Your task to perform on an android device: Clear all items from cart on costco.com. Add acer predator to the cart on costco.com Image 0: 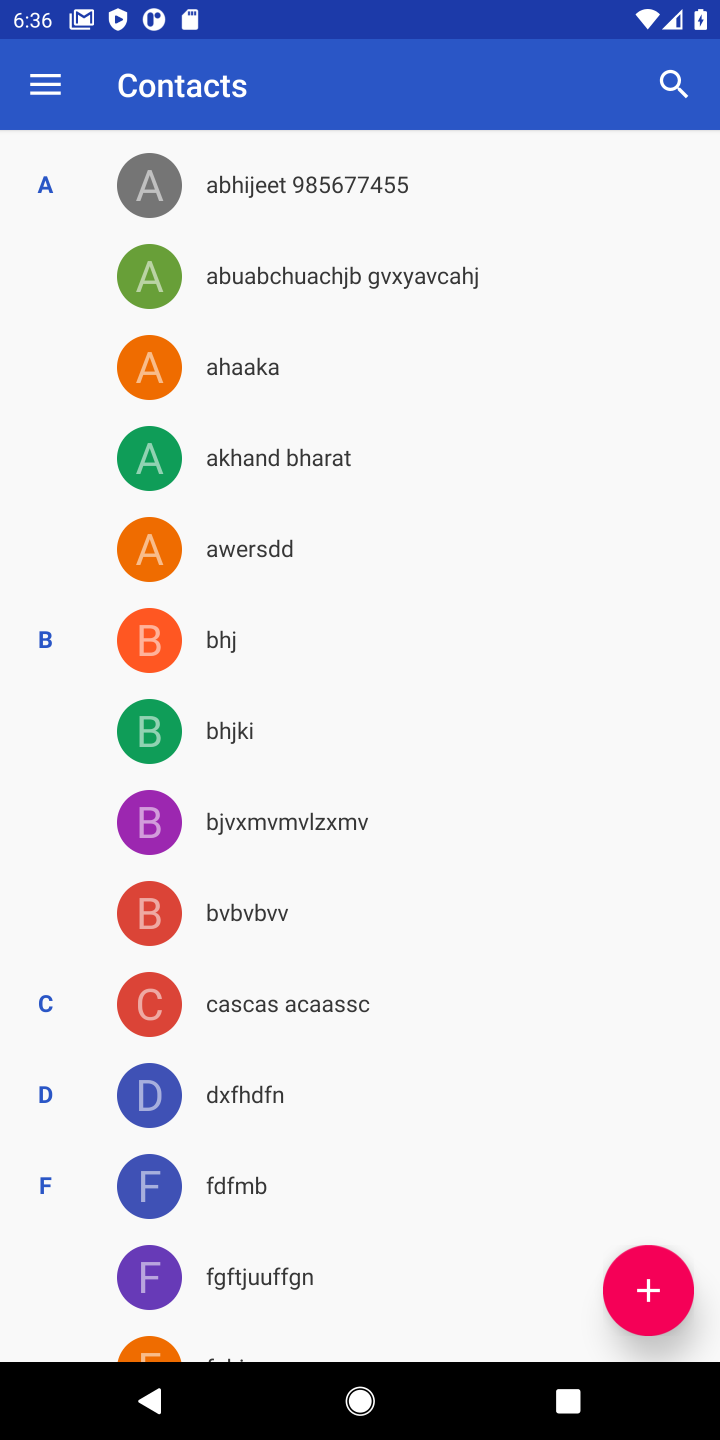
Step 0: press home button
Your task to perform on an android device: Clear all items from cart on costco.com. Add acer predator to the cart on costco.com Image 1: 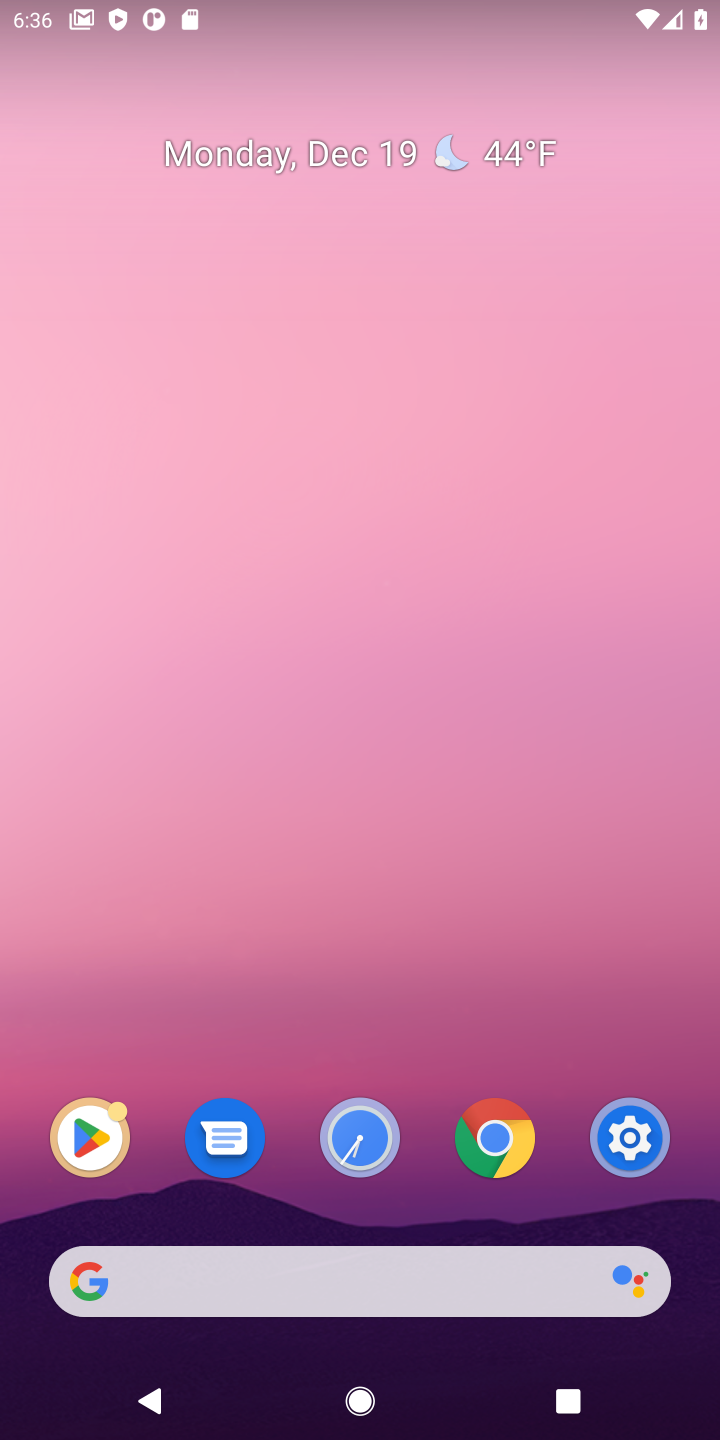
Step 1: click (501, 1148)
Your task to perform on an android device: Clear all items from cart on costco.com. Add acer predator to the cart on costco.com Image 2: 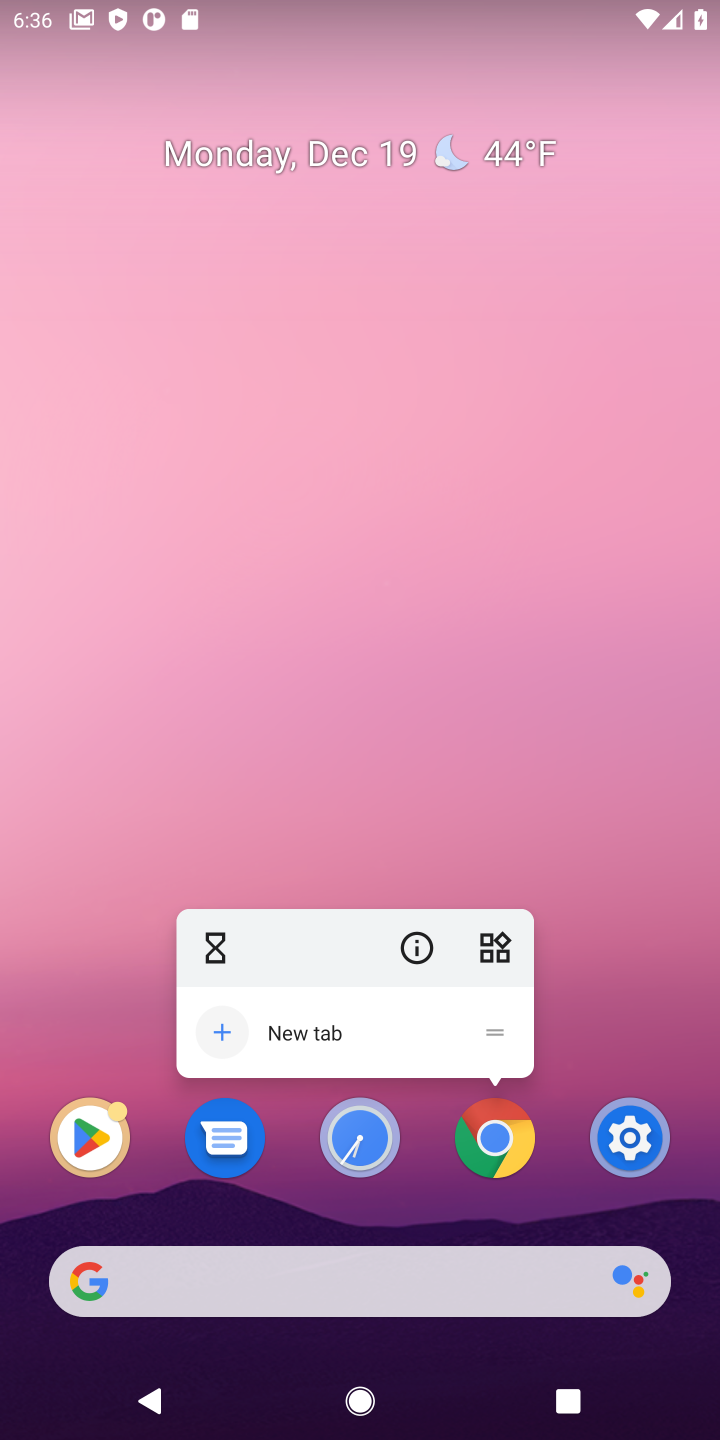
Step 2: click (496, 1123)
Your task to perform on an android device: Clear all items from cart on costco.com. Add acer predator to the cart on costco.com Image 3: 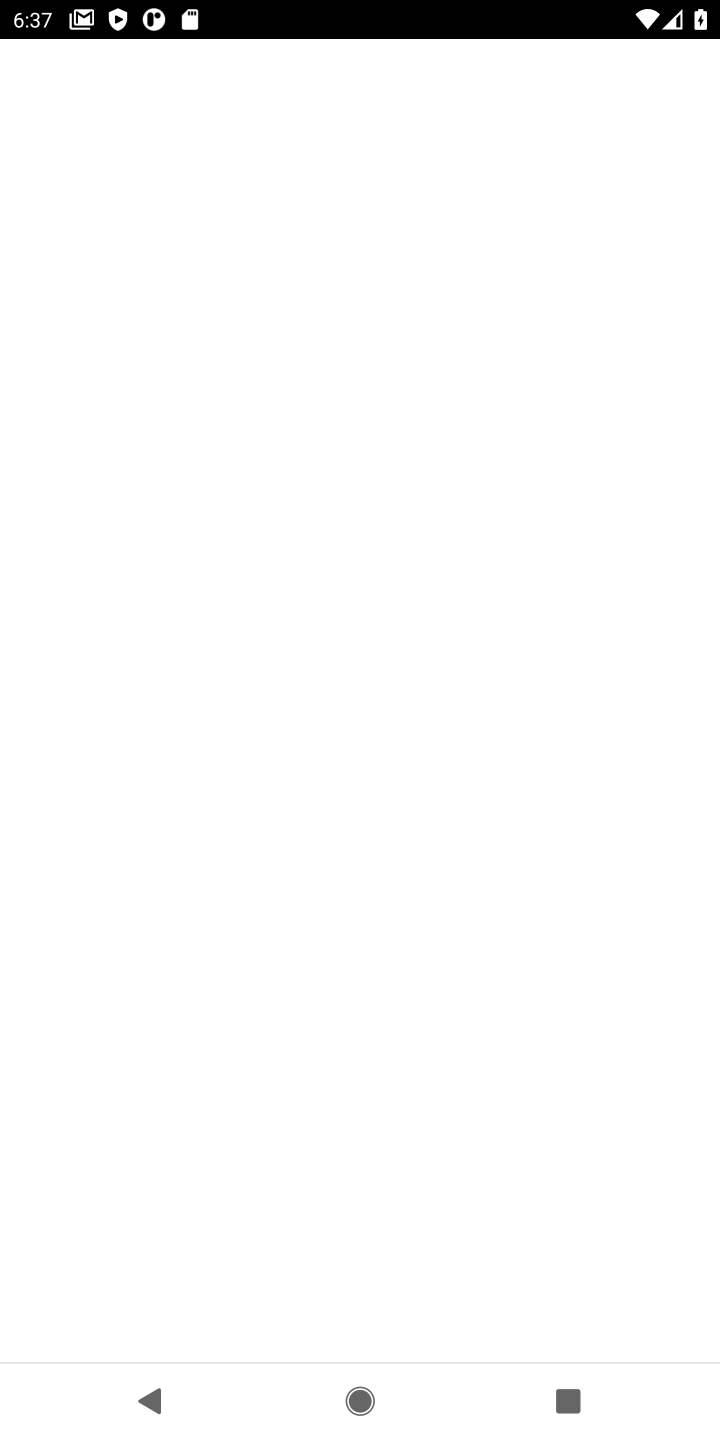
Step 3: click (496, 1123)
Your task to perform on an android device: Clear all items from cart on costco.com. Add acer predator to the cart on costco.com Image 4: 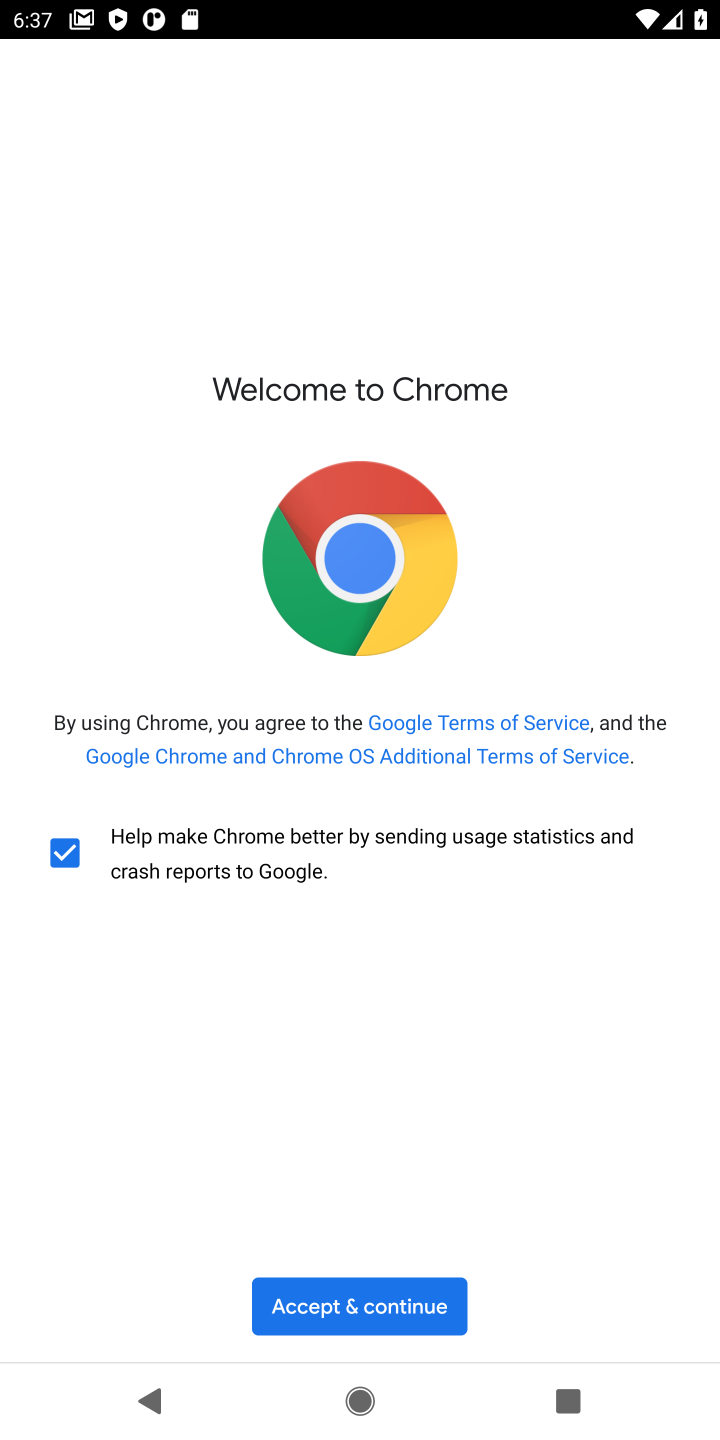
Step 4: click (350, 1310)
Your task to perform on an android device: Clear all items from cart on costco.com. Add acer predator to the cart on costco.com Image 5: 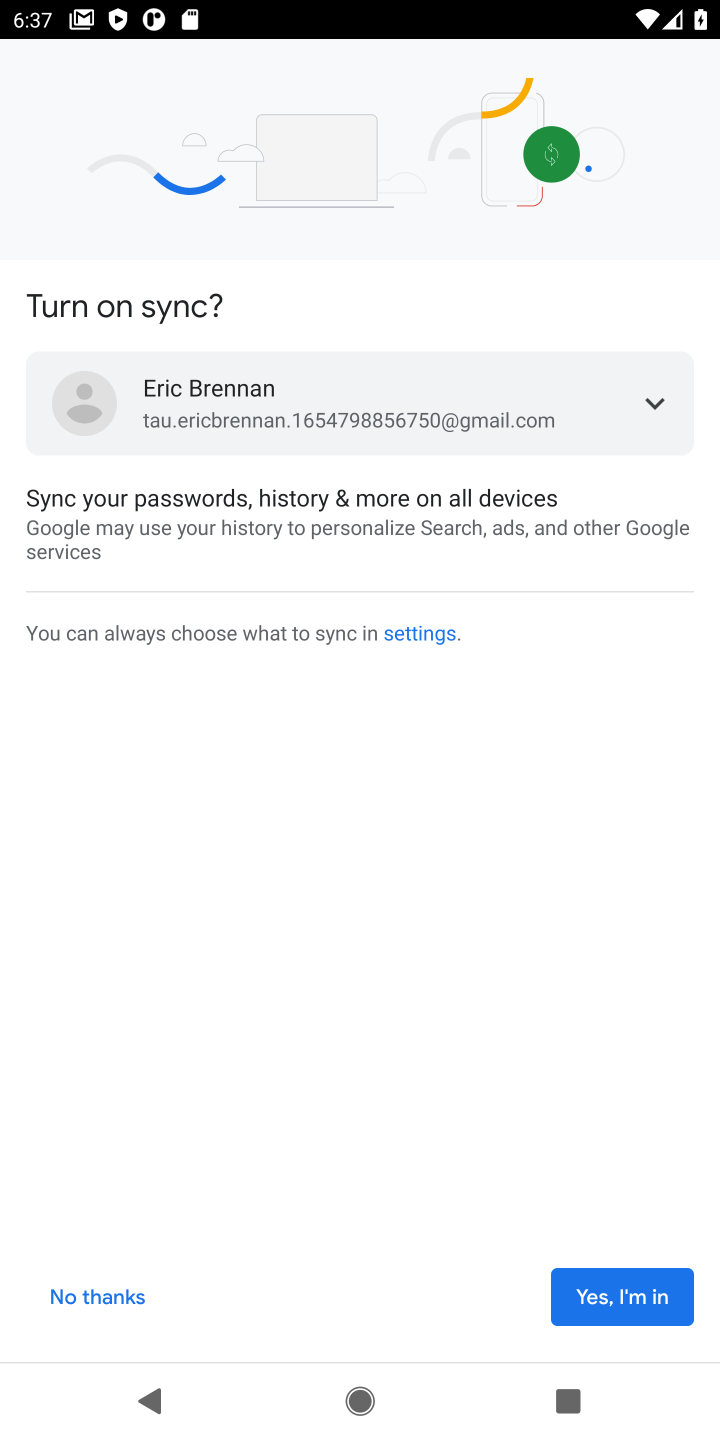
Step 5: click (601, 1300)
Your task to perform on an android device: Clear all items from cart on costco.com. Add acer predator to the cart on costco.com Image 6: 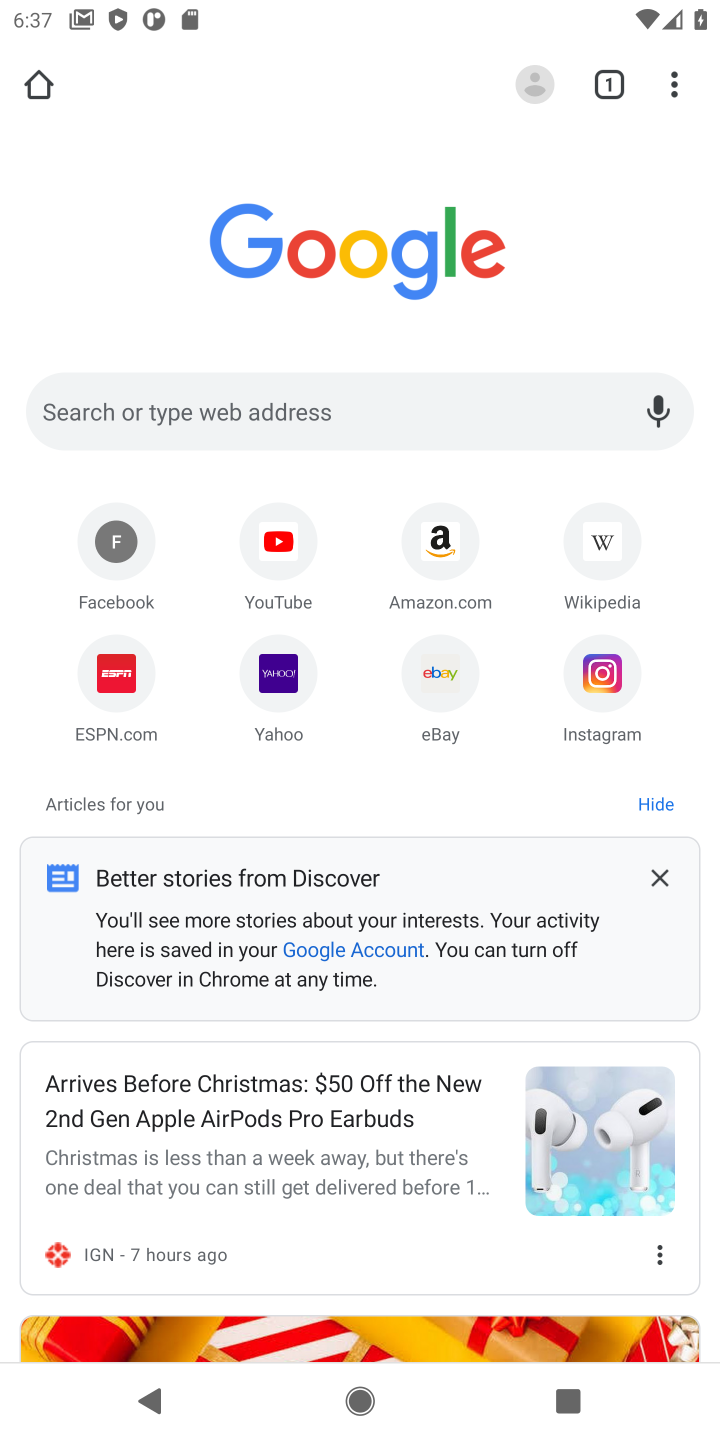
Step 6: click (370, 391)
Your task to perform on an android device: Clear all items from cart on costco.com. Add acer predator to the cart on costco.com Image 7: 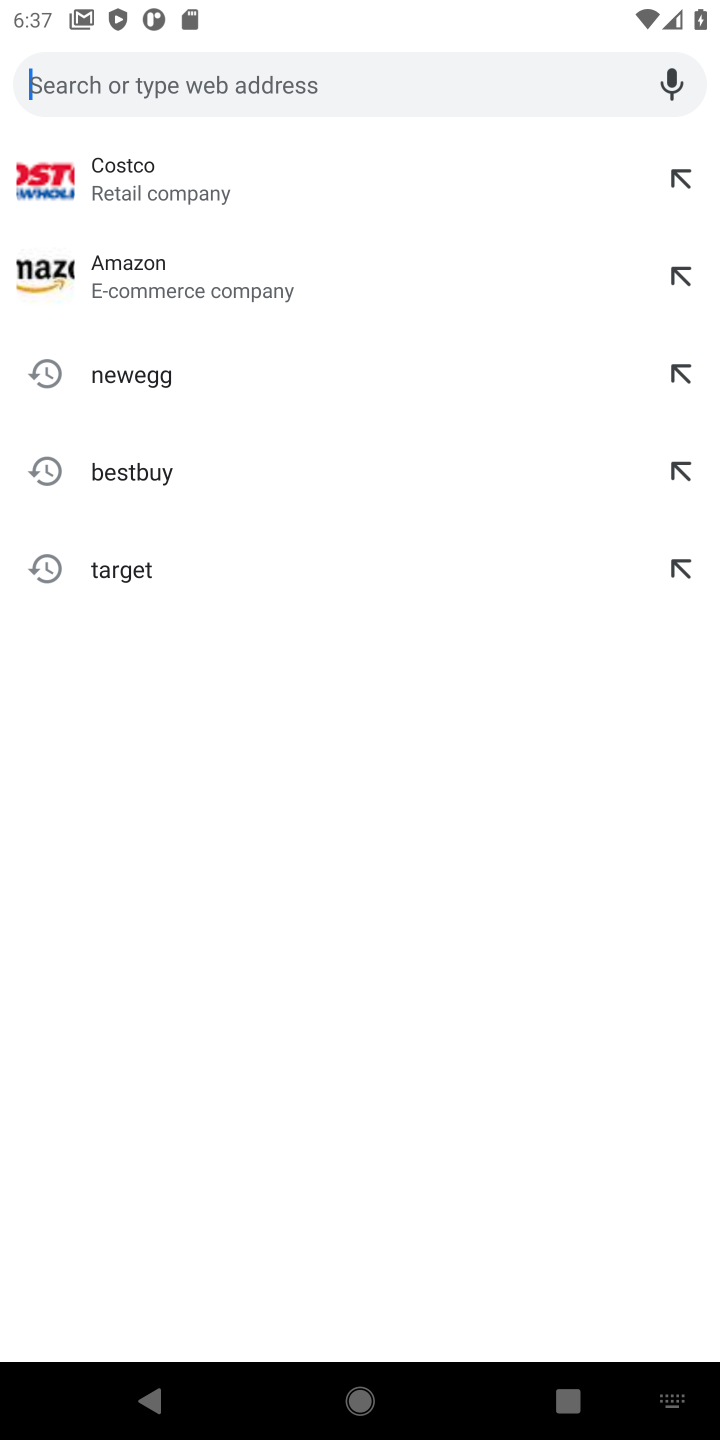
Step 7: click (220, 191)
Your task to perform on an android device: Clear all items from cart on costco.com. Add acer predator to the cart on costco.com Image 8: 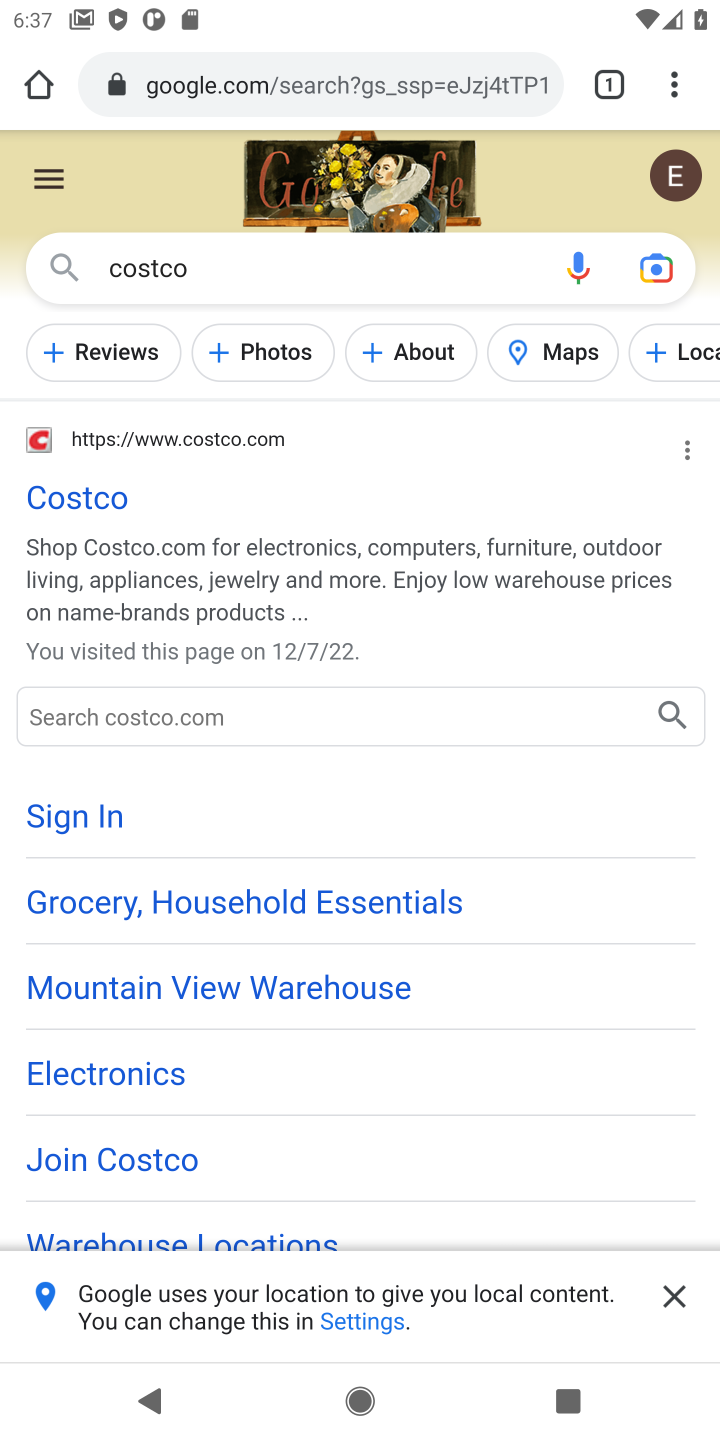
Step 8: click (83, 503)
Your task to perform on an android device: Clear all items from cart on costco.com. Add acer predator to the cart on costco.com Image 9: 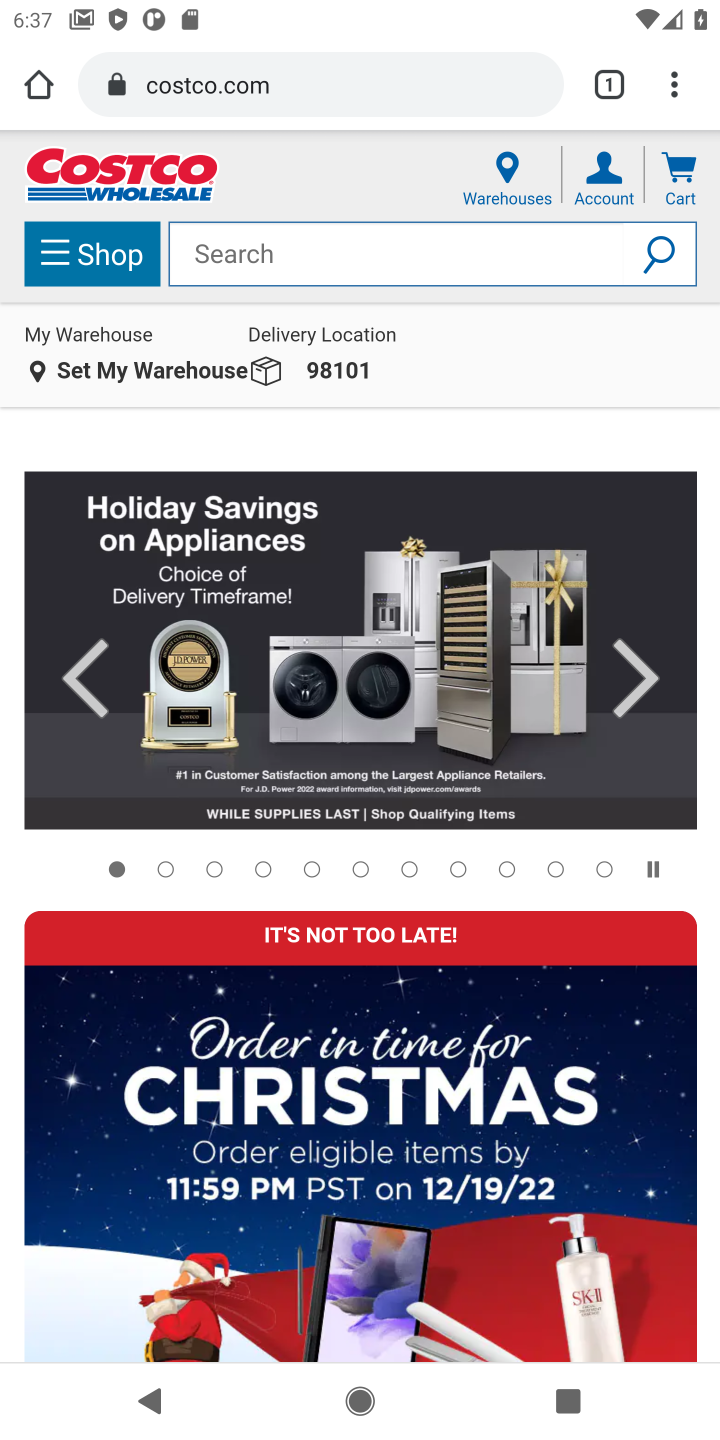
Step 9: click (383, 260)
Your task to perform on an android device: Clear all items from cart on costco.com. Add acer predator to the cart on costco.com Image 10: 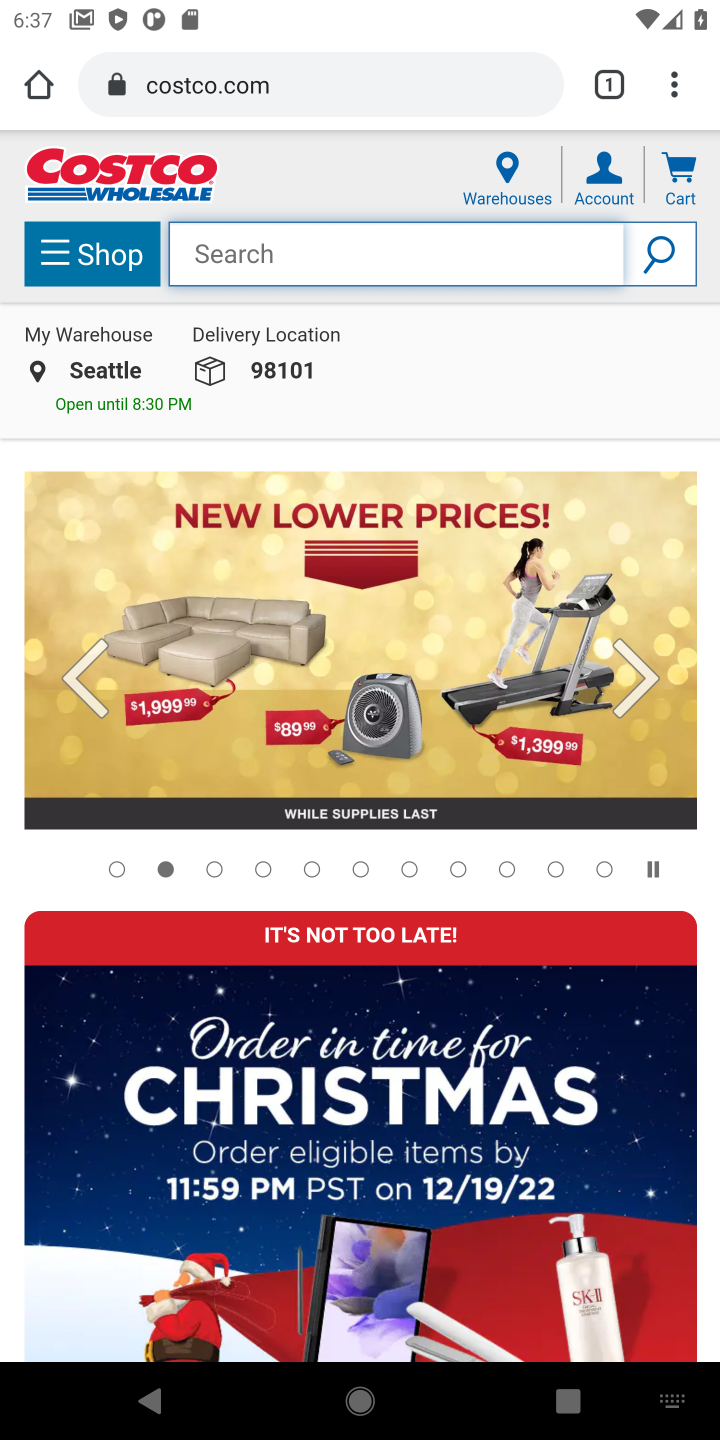
Step 10: type "acer predator"
Your task to perform on an android device: Clear all items from cart on costco.com. Add acer predator to the cart on costco.com Image 11: 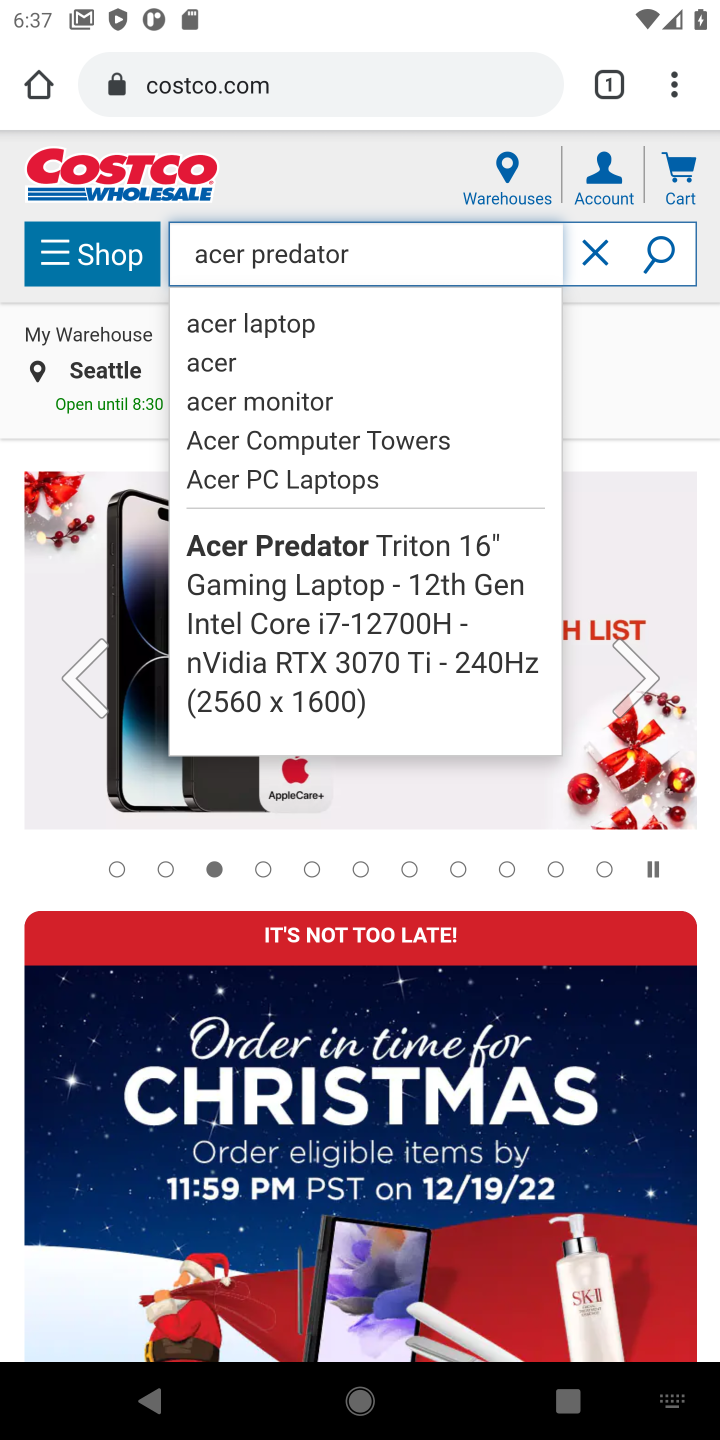
Step 11: click (280, 329)
Your task to perform on an android device: Clear all items from cart on costco.com. Add acer predator to the cart on costco.com Image 12: 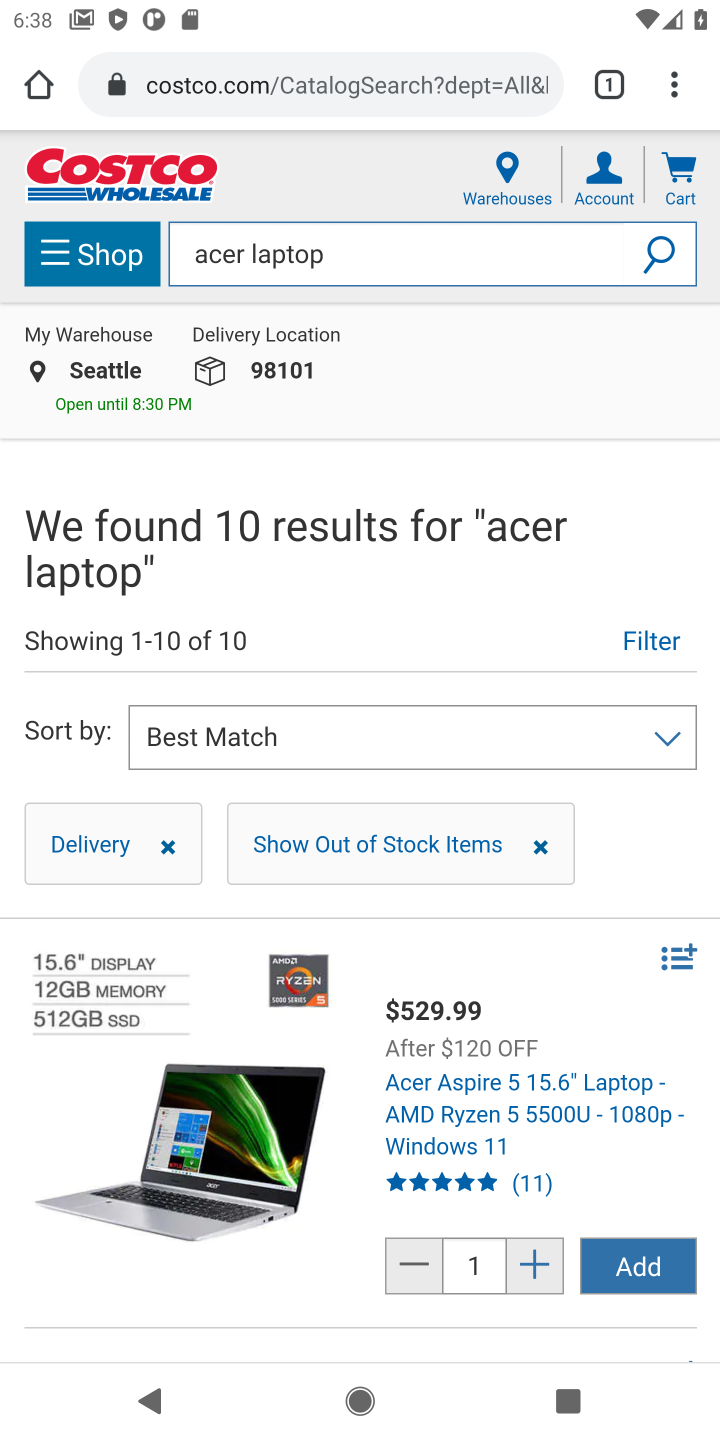
Step 12: click (634, 1278)
Your task to perform on an android device: Clear all items from cart on costco.com. Add acer predator to the cart on costco.com Image 13: 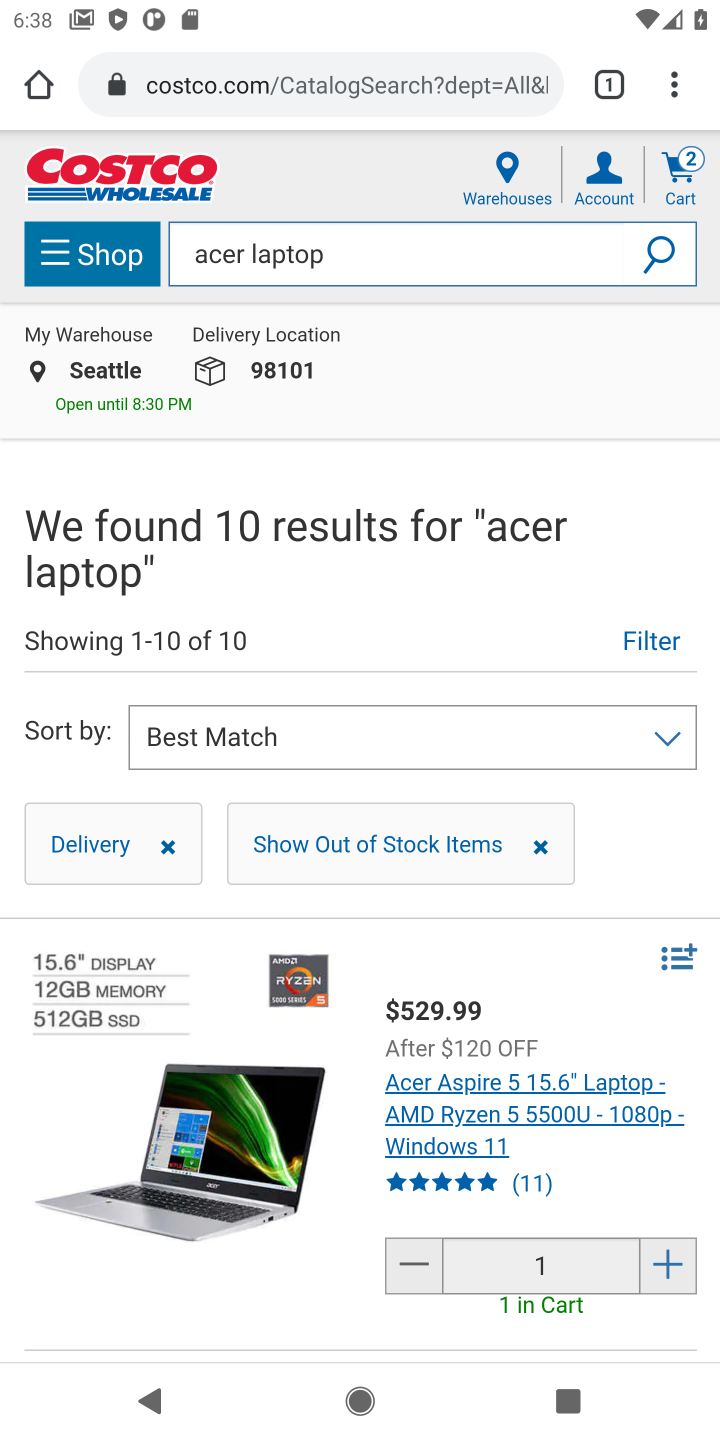
Step 13: task complete